Your task to perform on an android device: What is the recent news? Image 0: 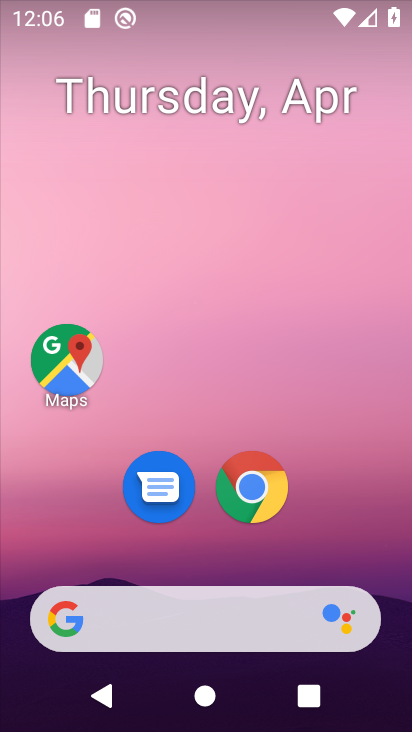
Step 0: drag from (198, 654) to (272, 271)
Your task to perform on an android device: What is the recent news? Image 1: 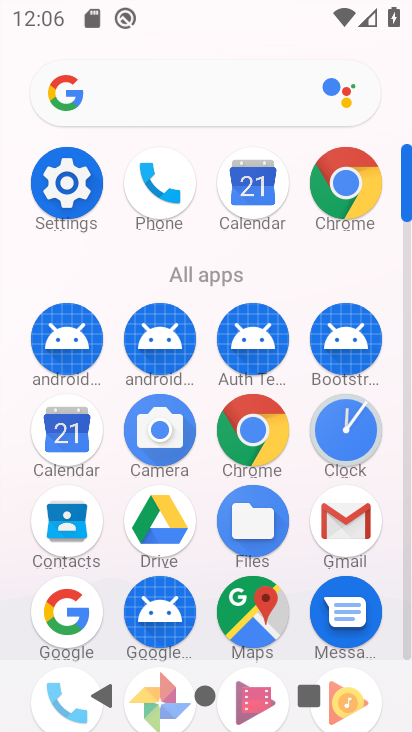
Step 1: click (165, 97)
Your task to perform on an android device: What is the recent news? Image 2: 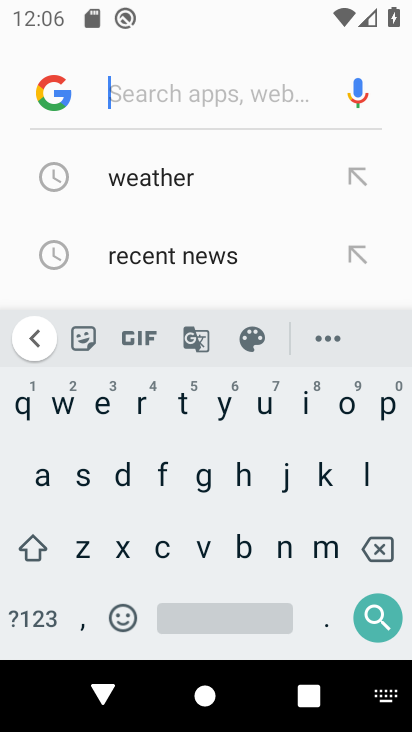
Step 2: click (114, 256)
Your task to perform on an android device: What is the recent news? Image 3: 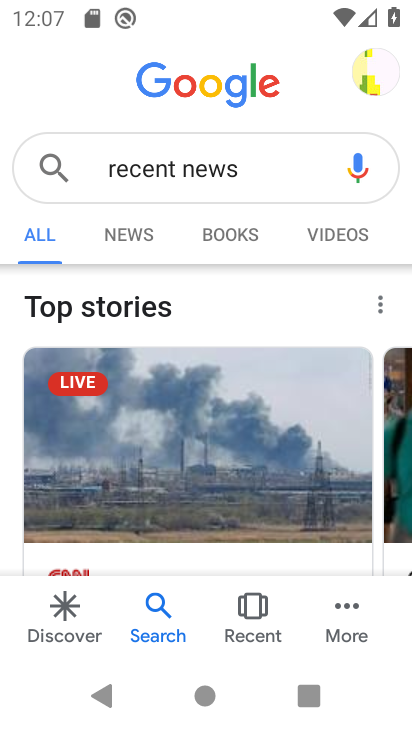
Step 3: task complete